Your task to perform on an android device: Open eBay Image 0: 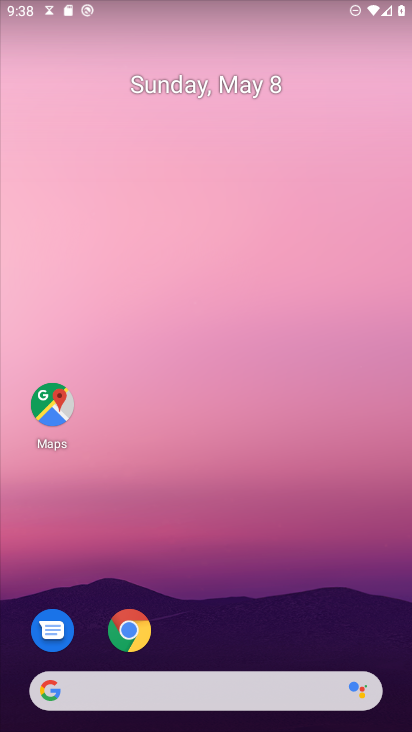
Step 0: press home button
Your task to perform on an android device: Open eBay Image 1: 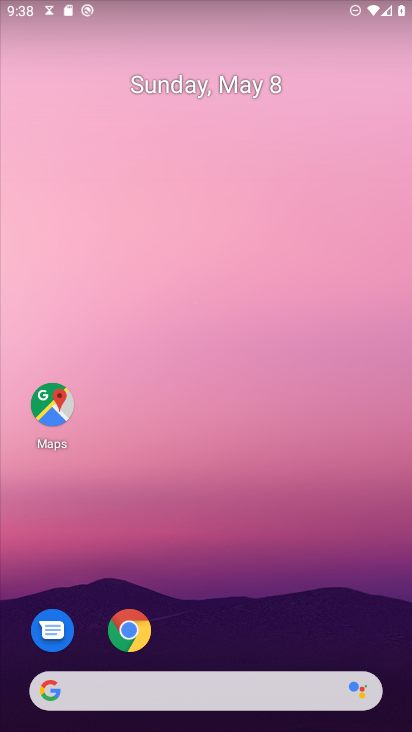
Step 1: click (137, 632)
Your task to perform on an android device: Open eBay Image 2: 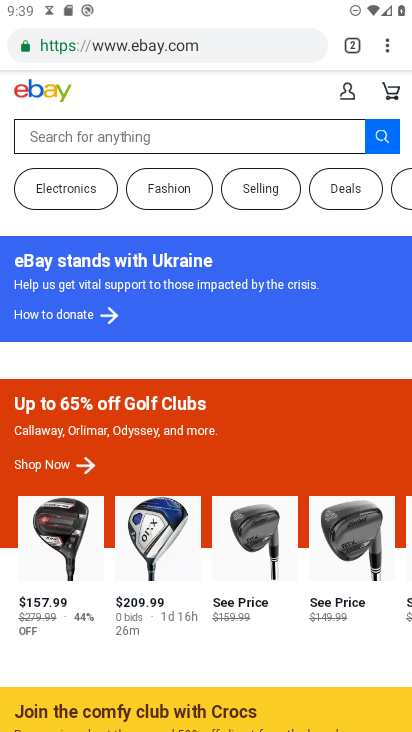
Step 2: task complete